Your task to perform on an android device: Go to internet settings Image 0: 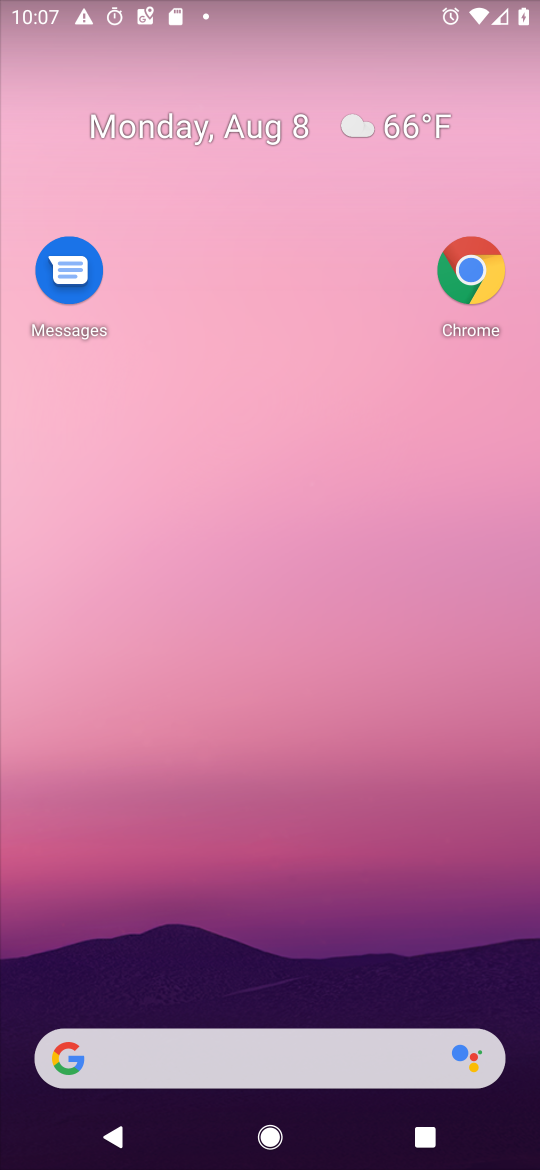
Step 0: click (362, 511)
Your task to perform on an android device: Go to internet settings Image 1: 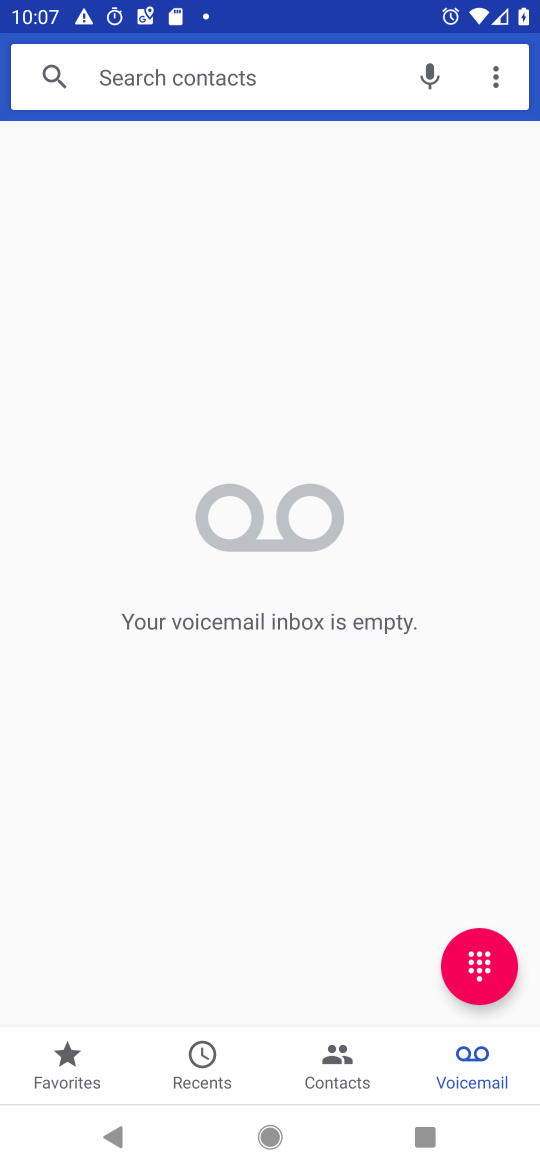
Step 1: press home button
Your task to perform on an android device: Go to internet settings Image 2: 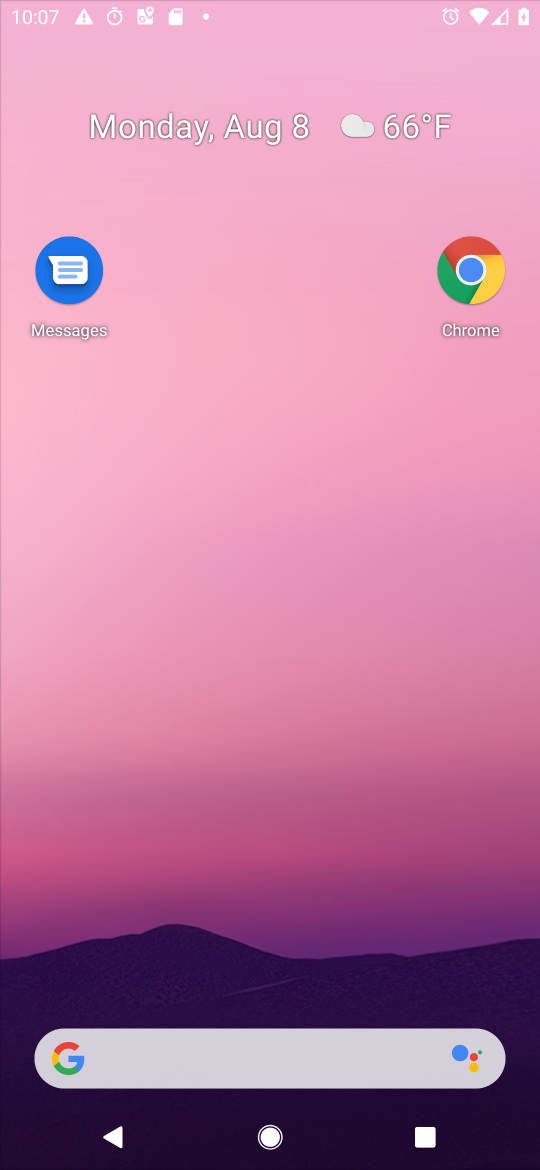
Step 2: drag from (327, 536) to (195, 12)
Your task to perform on an android device: Go to internet settings Image 3: 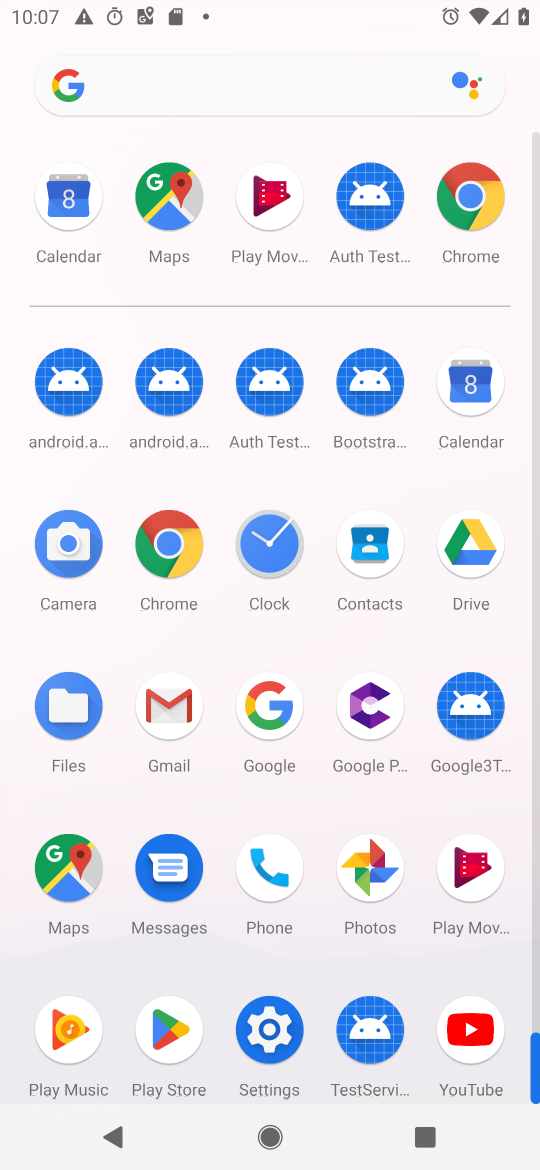
Step 3: click (257, 1026)
Your task to perform on an android device: Go to internet settings Image 4: 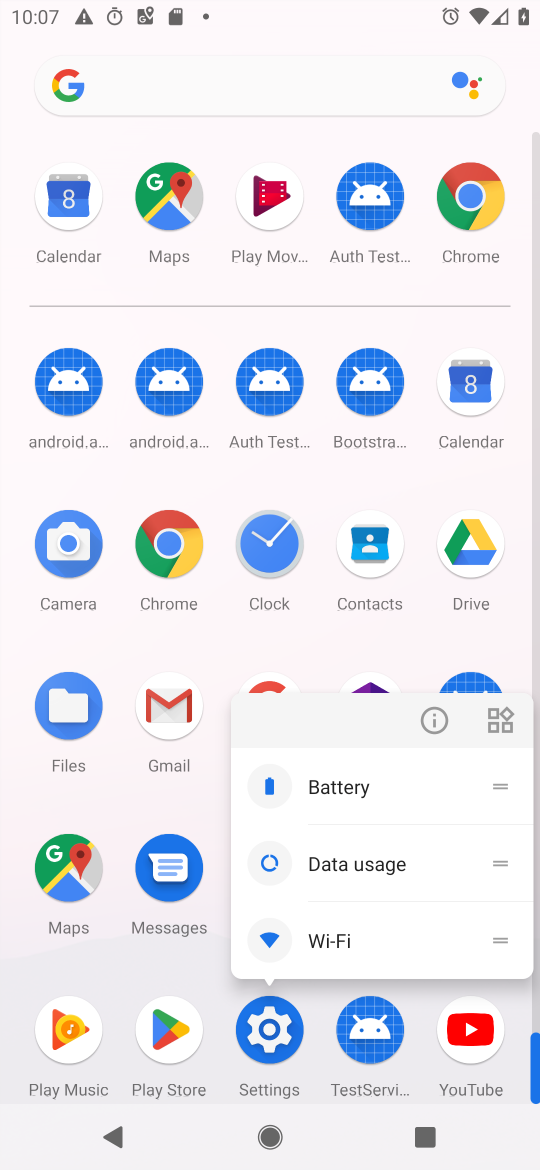
Step 4: click (428, 714)
Your task to perform on an android device: Go to internet settings Image 5: 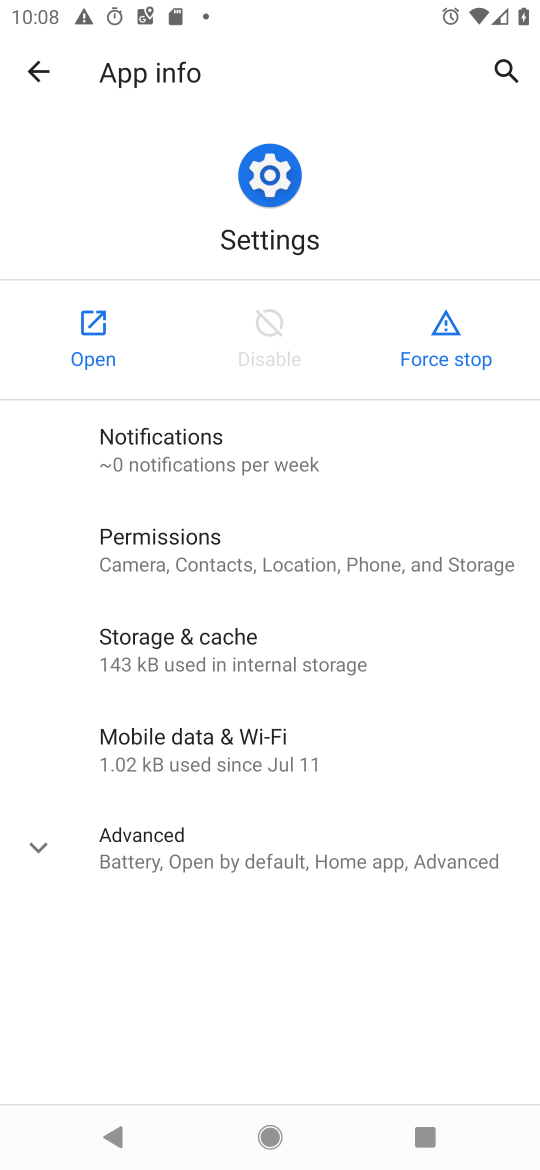
Step 5: click (99, 336)
Your task to perform on an android device: Go to internet settings Image 6: 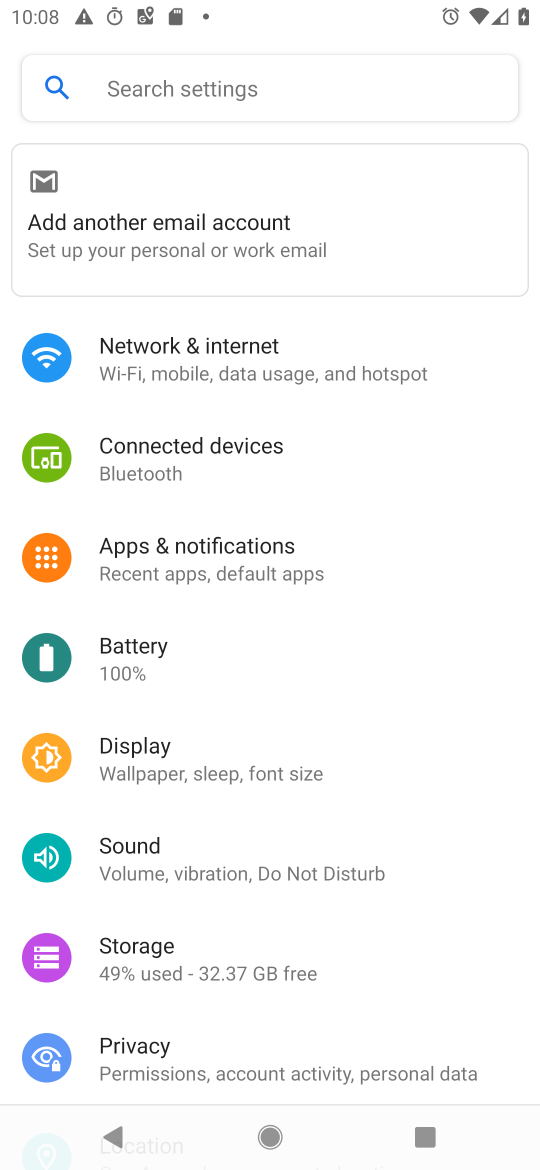
Step 6: click (246, 366)
Your task to perform on an android device: Go to internet settings Image 7: 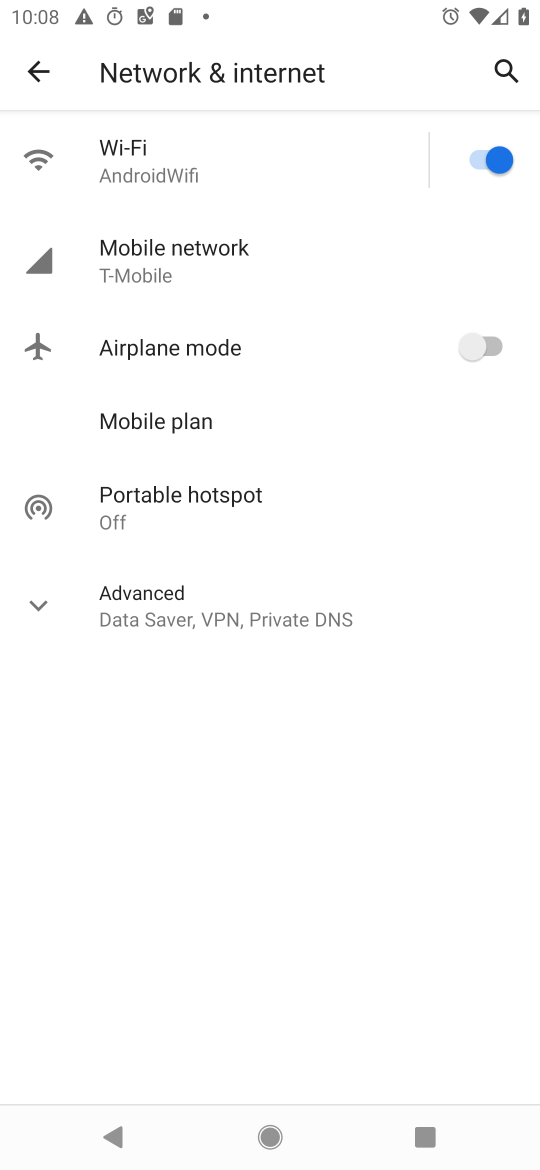
Step 7: click (207, 245)
Your task to perform on an android device: Go to internet settings Image 8: 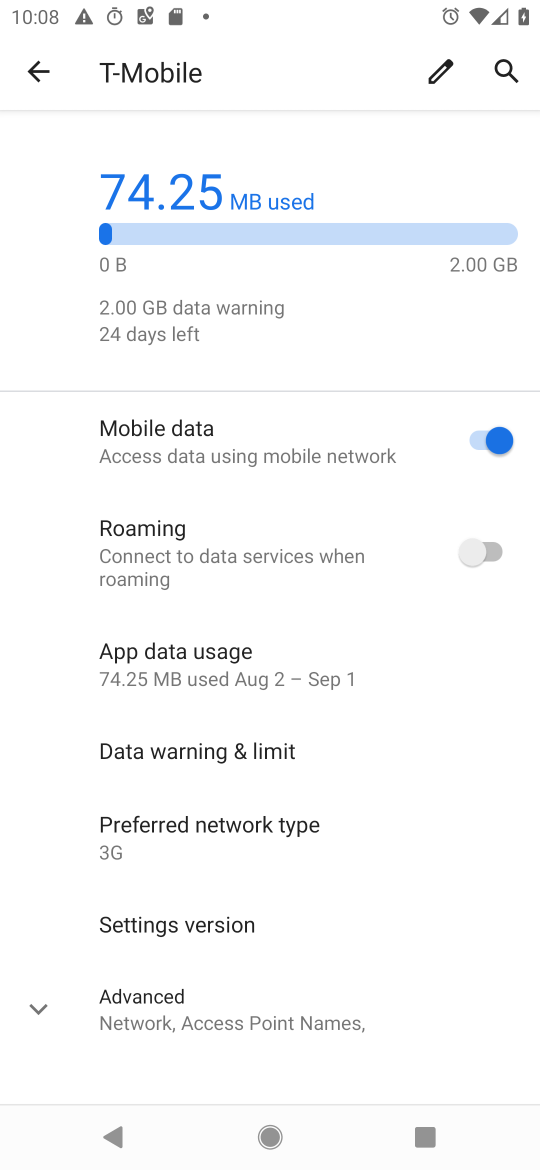
Step 8: task complete